Your task to perform on an android device: turn on priority inbox in the gmail app Image 0: 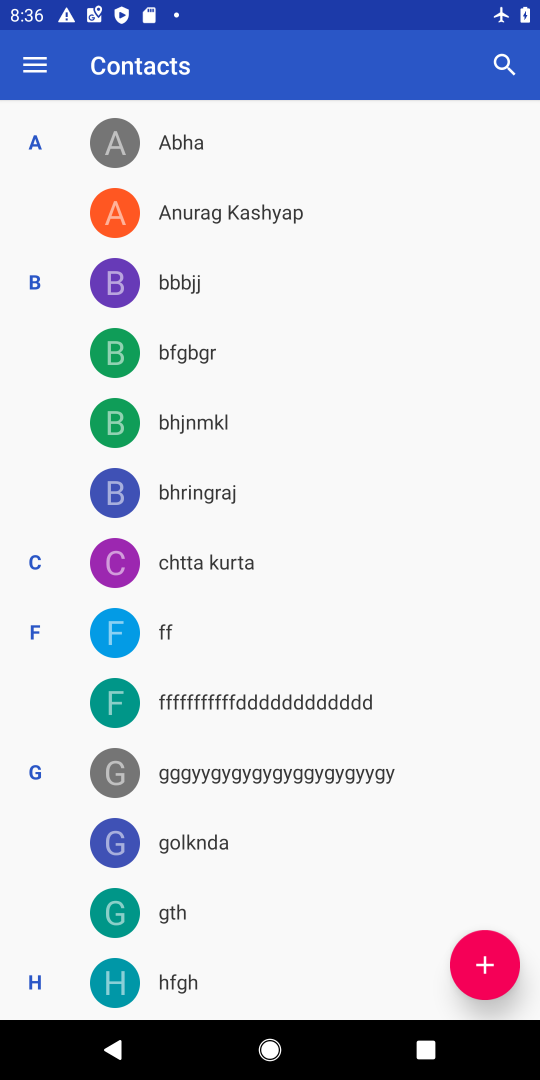
Step 0: press home button
Your task to perform on an android device: turn on priority inbox in the gmail app Image 1: 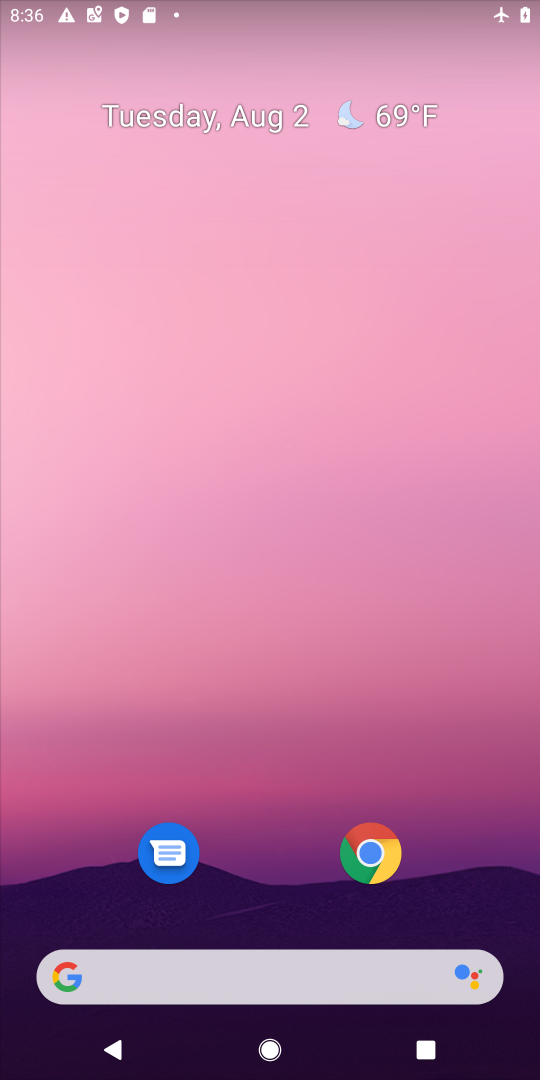
Step 1: drag from (272, 901) to (193, 314)
Your task to perform on an android device: turn on priority inbox in the gmail app Image 2: 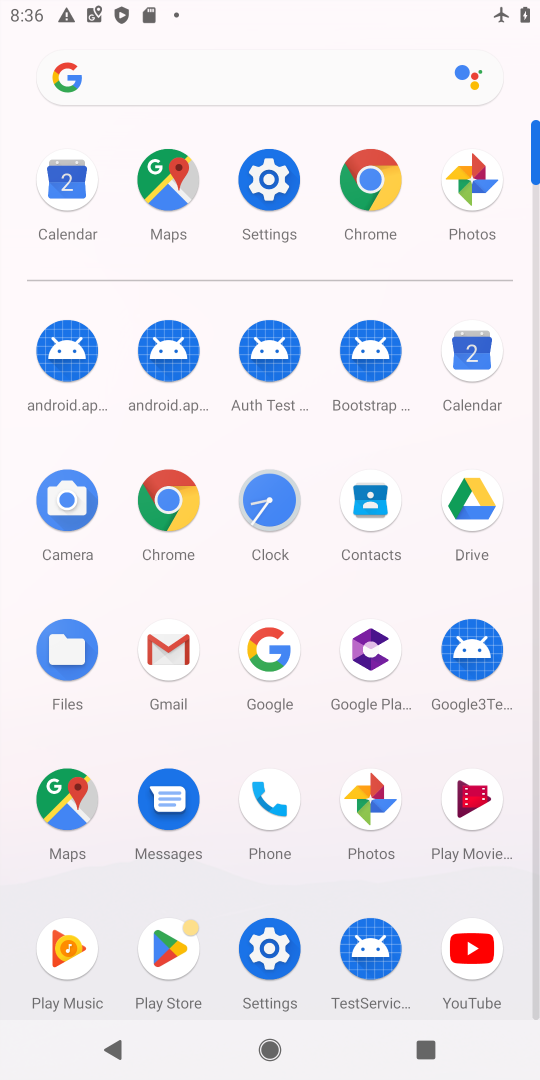
Step 2: click (175, 663)
Your task to perform on an android device: turn on priority inbox in the gmail app Image 3: 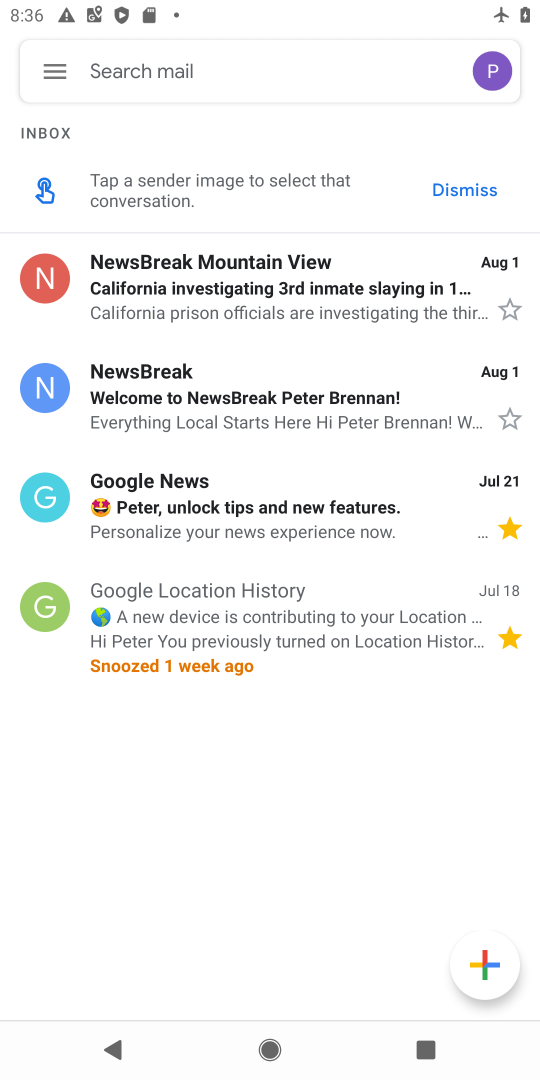
Step 3: click (40, 75)
Your task to perform on an android device: turn on priority inbox in the gmail app Image 4: 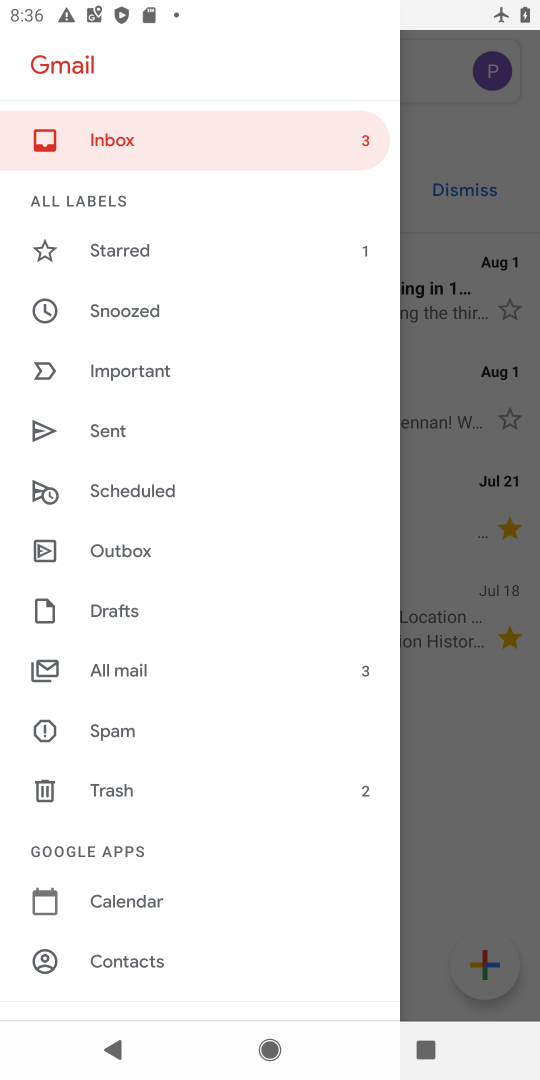
Step 4: drag from (173, 971) to (160, 352)
Your task to perform on an android device: turn on priority inbox in the gmail app Image 5: 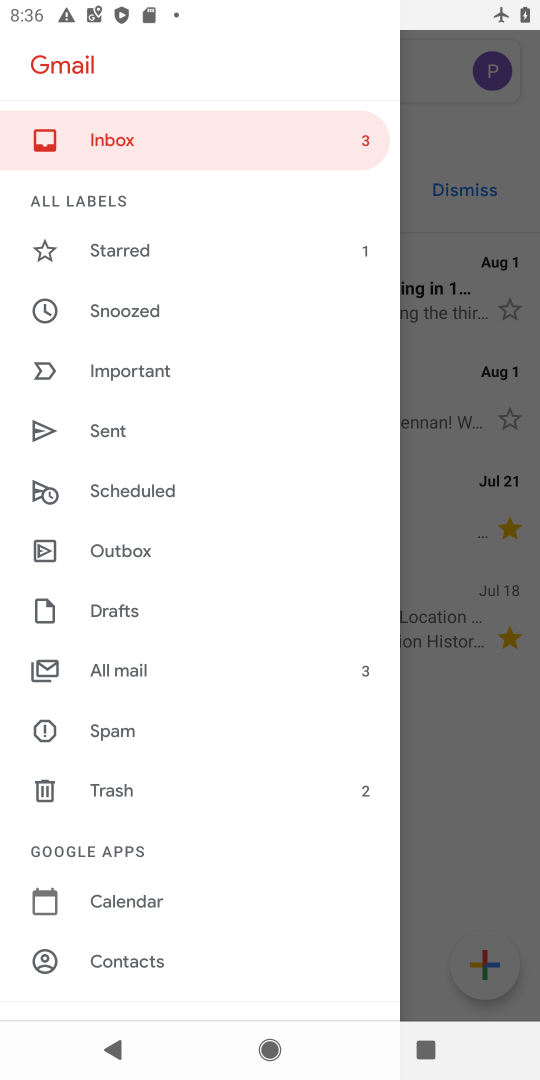
Step 5: drag from (137, 859) to (147, 373)
Your task to perform on an android device: turn on priority inbox in the gmail app Image 6: 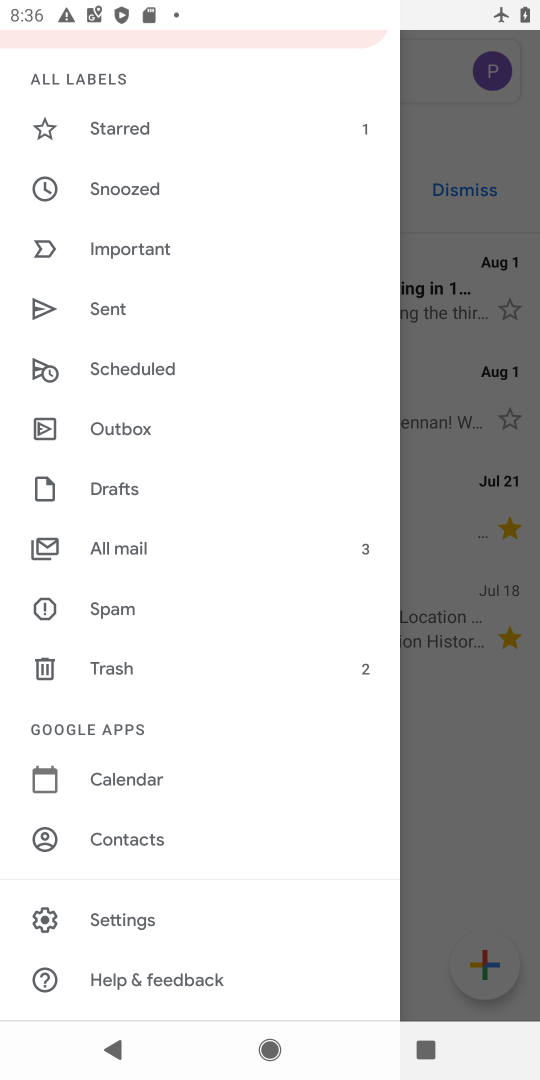
Step 6: click (98, 914)
Your task to perform on an android device: turn on priority inbox in the gmail app Image 7: 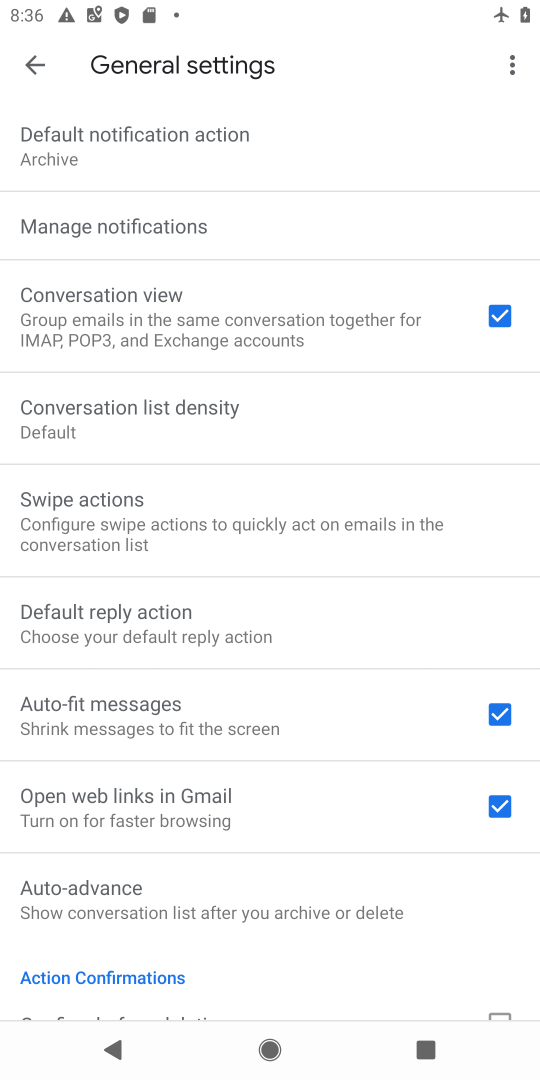
Step 7: drag from (152, 954) to (126, 768)
Your task to perform on an android device: turn on priority inbox in the gmail app Image 8: 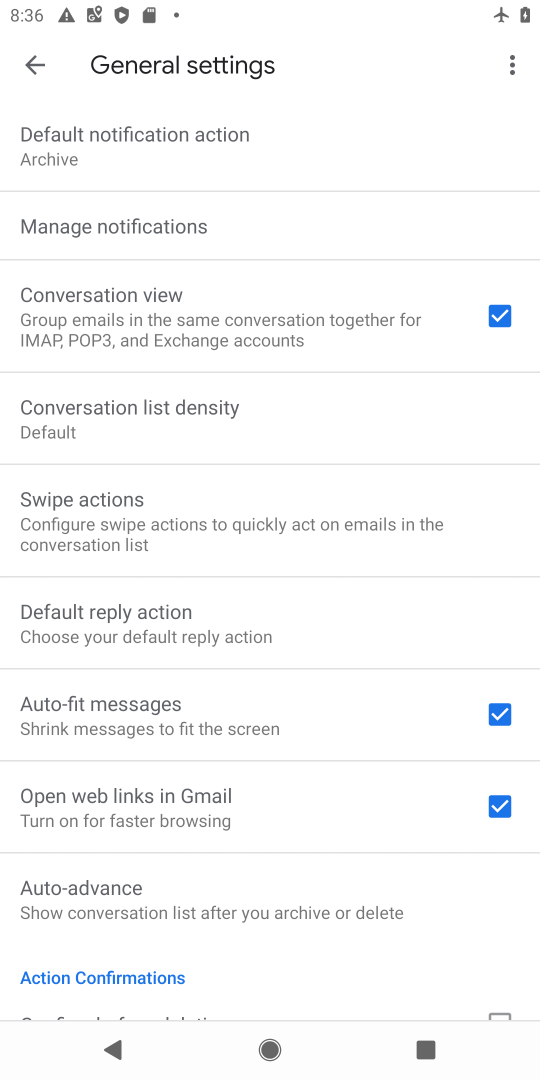
Step 8: press back button
Your task to perform on an android device: turn on priority inbox in the gmail app Image 9: 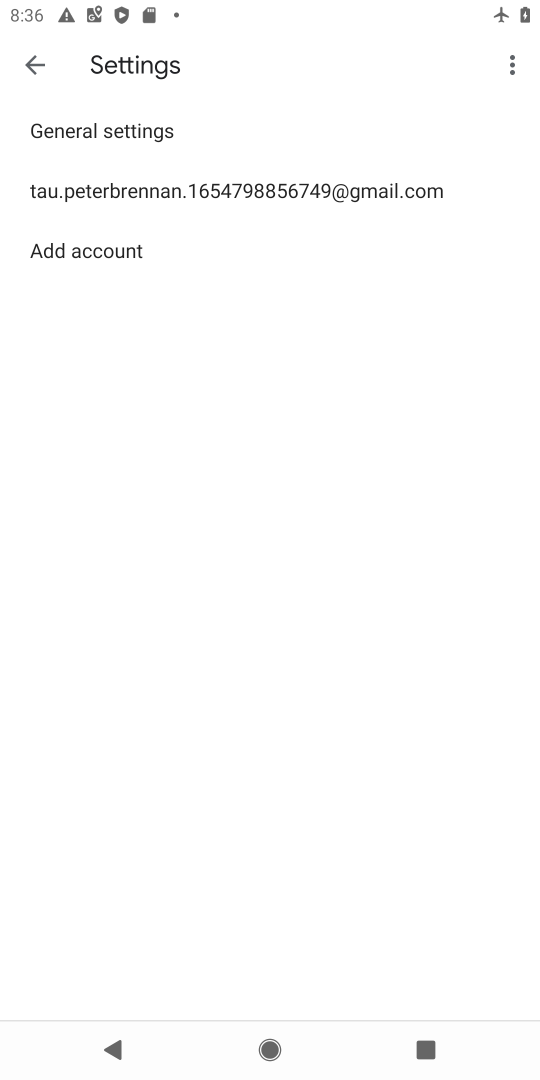
Step 9: click (200, 197)
Your task to perform on an android device: turn on priority inbox in the gmail app Image 10: 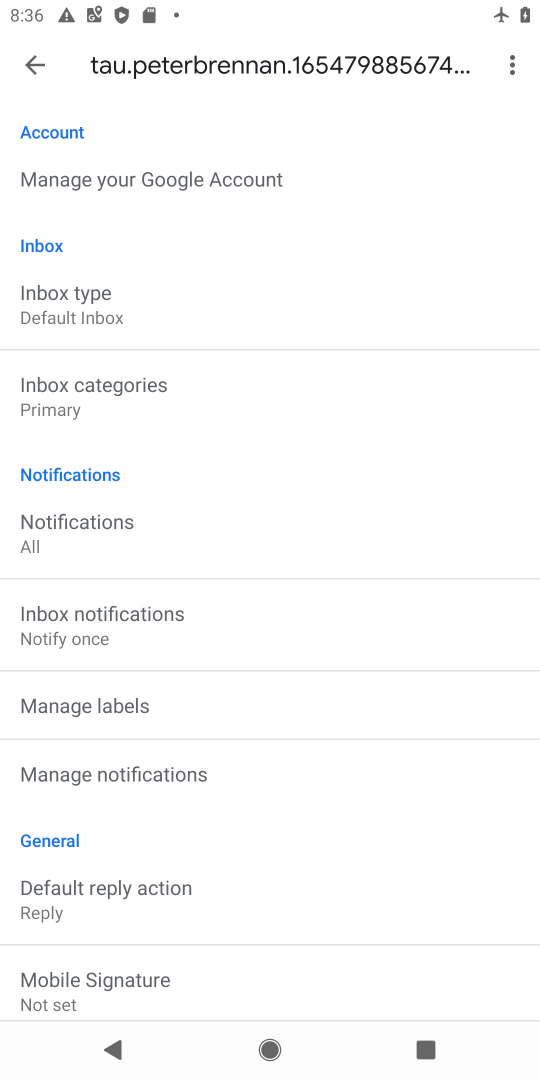
Step 10: click (83, 302)
Your task to perform on an android device: turn on priority inbox in the gmail app Image 11: 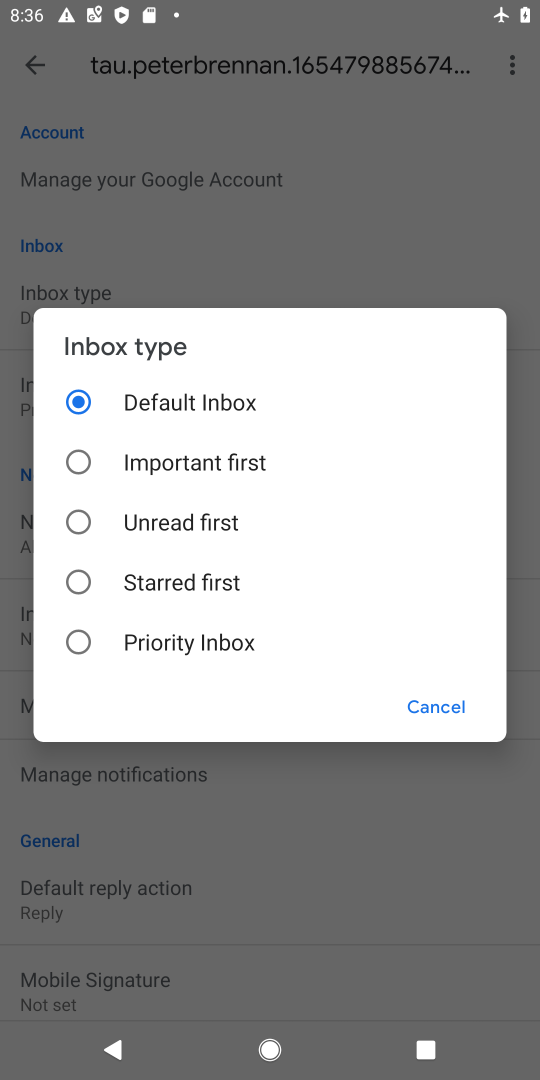
Step 11: click (123, 637)
Your task to perform on an android device: turn on priority inbox in the gmail app Image 12: 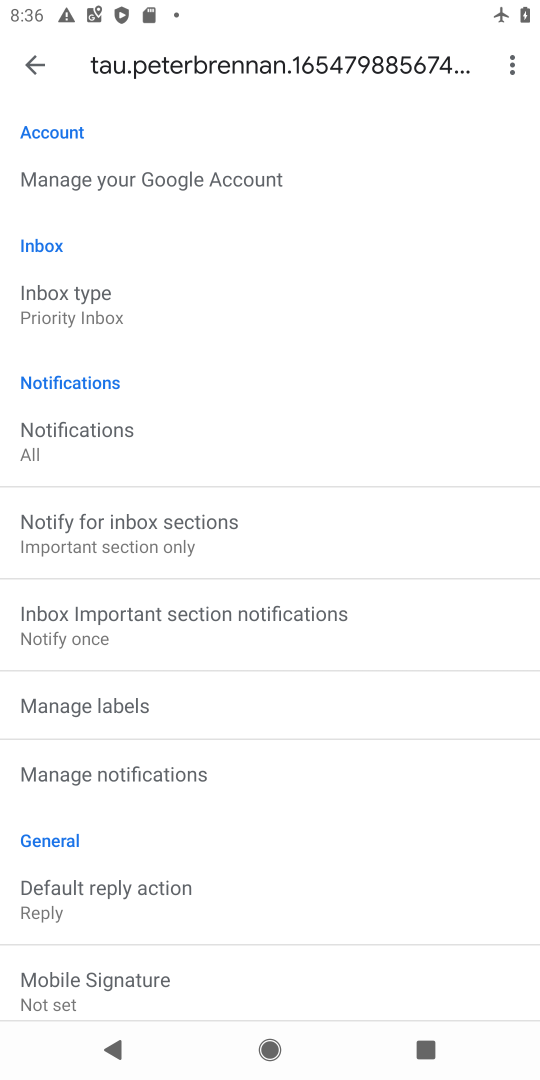
Step 12: task complete